Your task to perform on an android device: See recent photos Image 0: 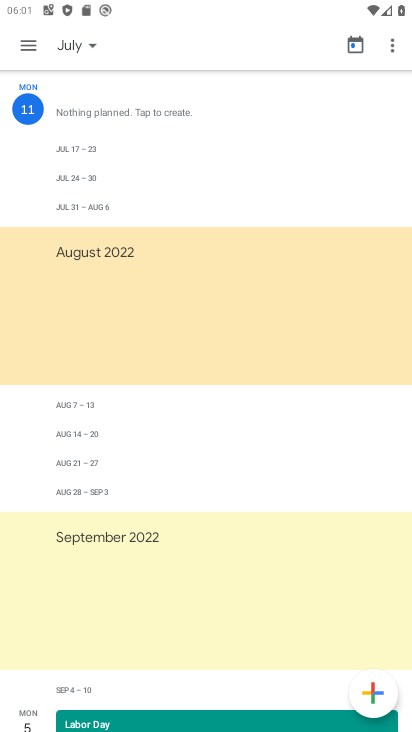
Step 0: press home button
Your task to perform on an android device: See recent photos Image 1: 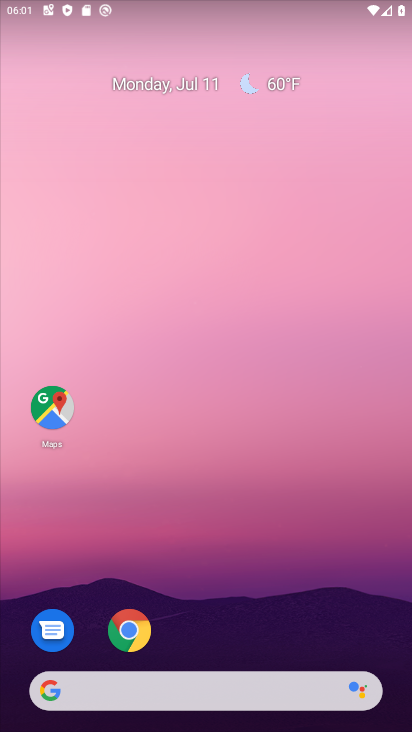
Step 1: drag from (208, 341) to (213, 151)
Your task to perform on an android device: See recent photos Image 2: 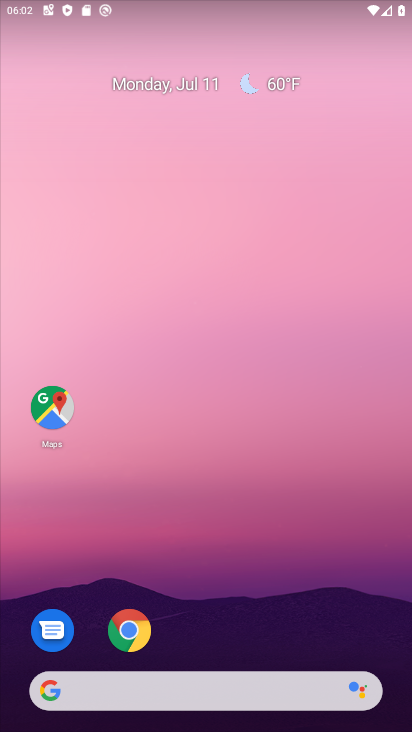
Step 2: drag from (228, 381) to (246, 293)
Your task to perform on an android device: See recent photos Image 3: 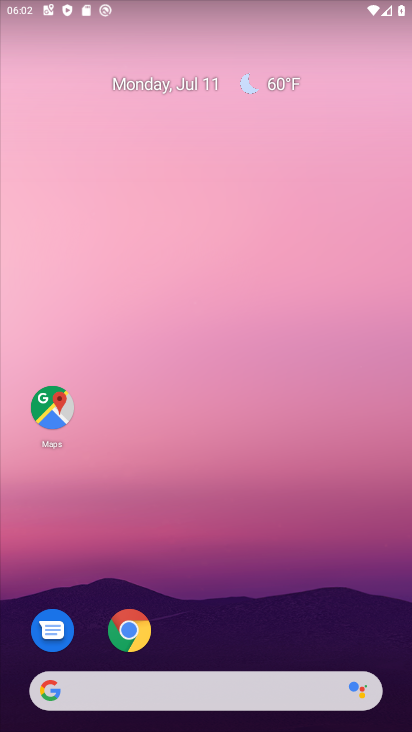
Step 3: drag from (187, 559) to (185, 171)
Your task to perform on an android device: See recent photos Image 4: 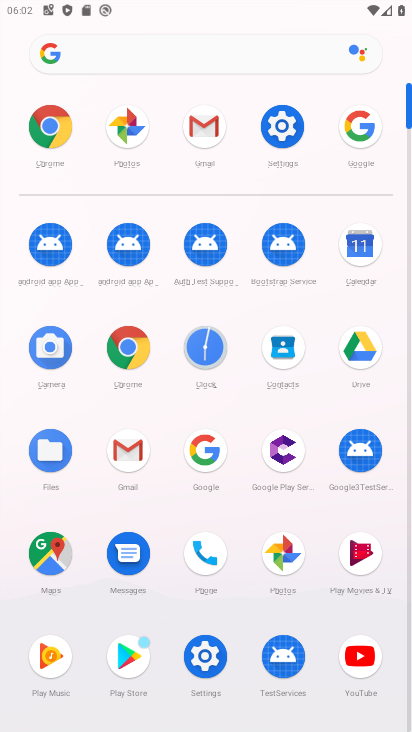
Step 4: click (279, 562)
Your task to perform on an android device: See recent photos Image 5: 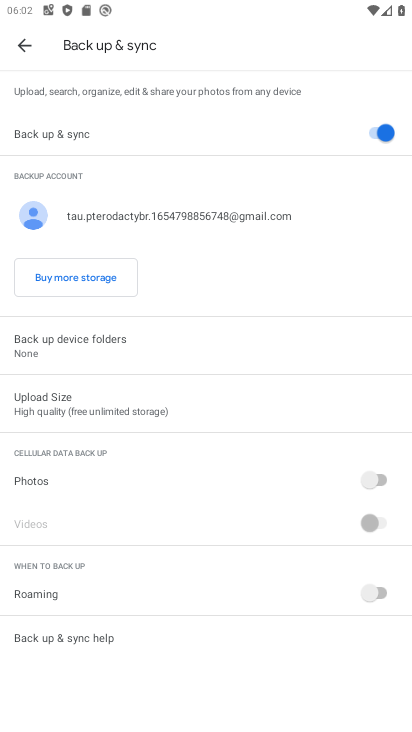
Step 5: click (27, 45)
Your task to perform on an android device: See recent photos Image 6: 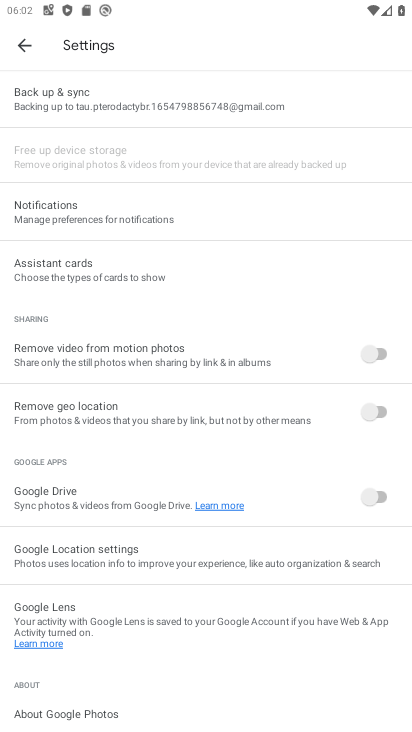
Step 6: click (27, 45)
Your task to perform on an android device: See recent photos Image 7: 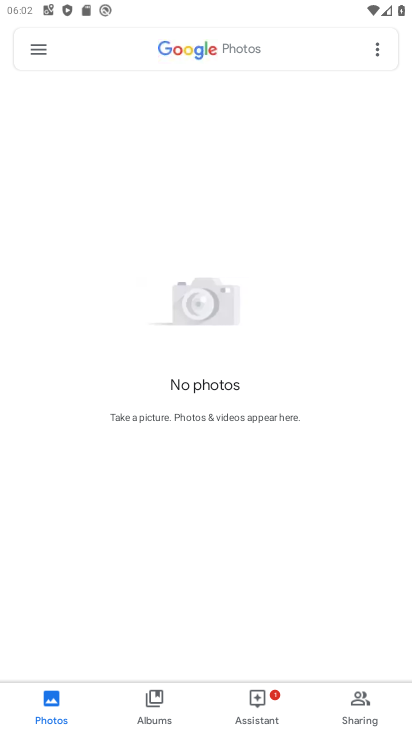
Step 7: task complete